Your task to perform on an android device: toggle show notifications on the lock screen Image 0: 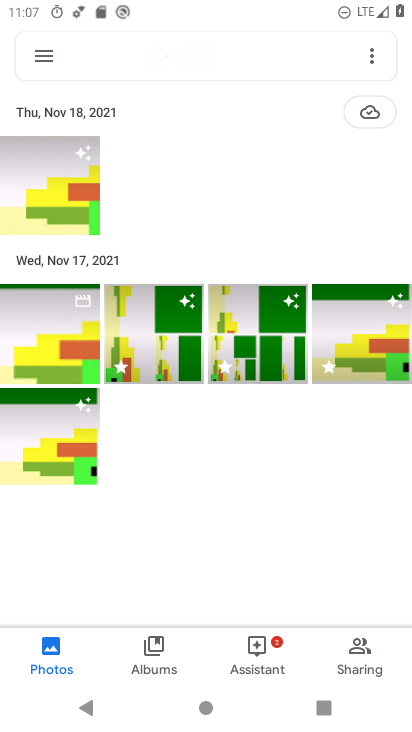
Step 0: press back button
Your task to perform on an android device: toggle show notifications on the lock screen Image 1: 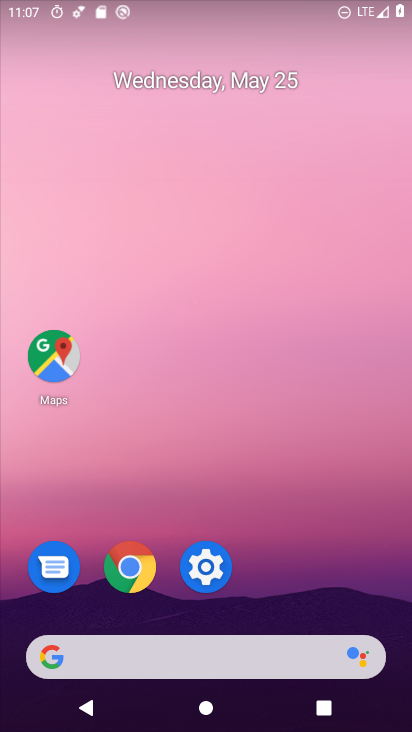
Step 1: drag from (284, 703) to (268, 200)
Your task to perform on an android device: toggle show notifications on the lock screen Image 2: 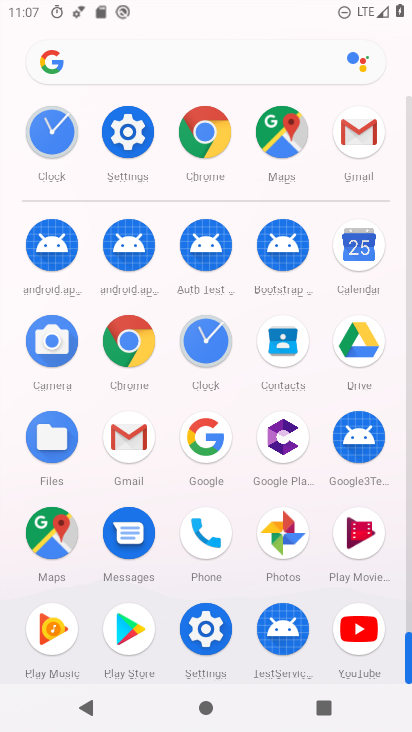
Step 2: click (130, 132)
Your task to perform on an android device: toggle show notifications on the lock screen Image 3: 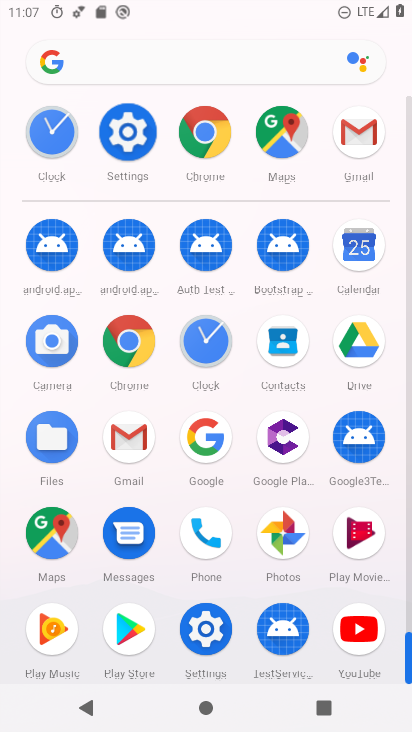
Step 3: click (130, 132)
Your task to perform on an android device: toggle show notifications on the lock screen Image 4: 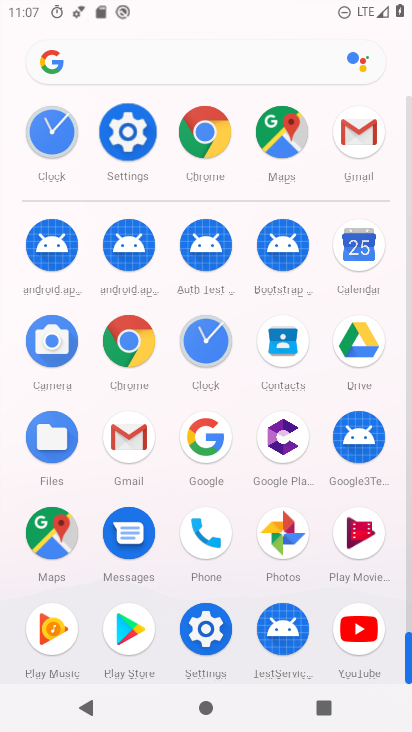
Step 4: click (130, 132)
Your task to perform on an android device: toggle show notifications on the lock screen Image 5: 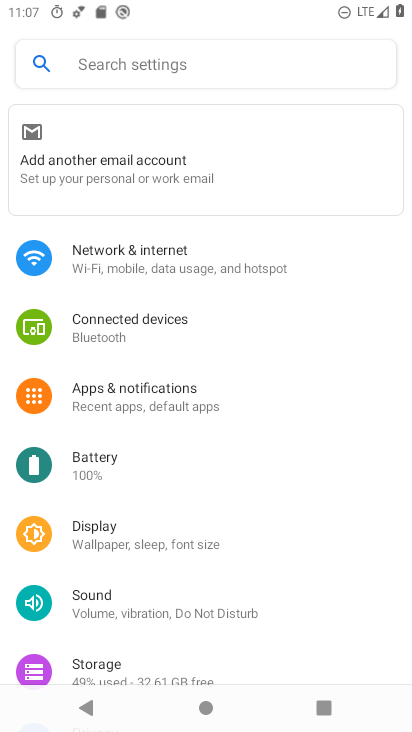
Step 5: click (121, 388)
Your task to perform on an android device: toggle show notifications on the lock screen Image 6: 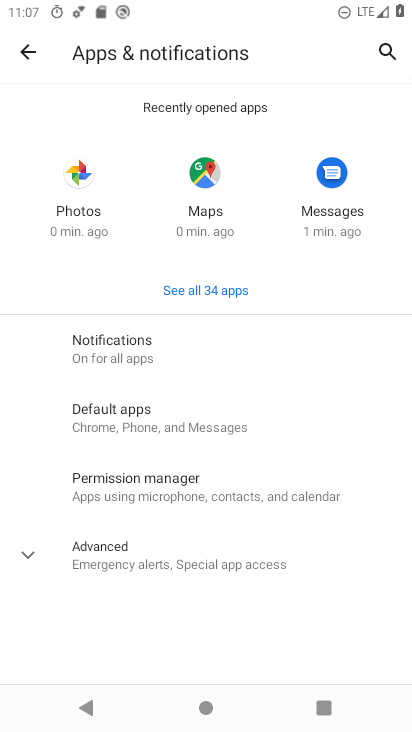
Step 6: click (103, 344)
Your task to perform on an android device: toggle show notifications on the lock screen Image 7: 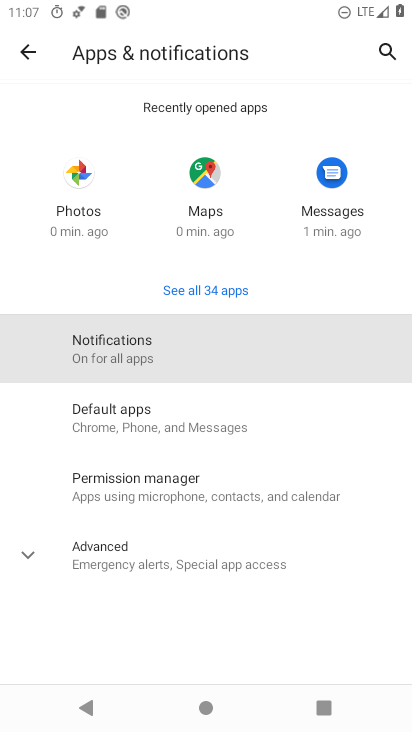
Step 7: click (106, 344)
Your task to perform on an android device: toggle show notifications on the lock screen Image 8: 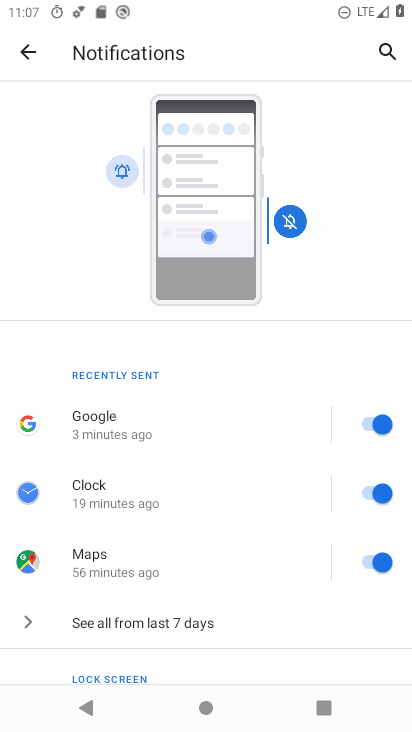
Step 8: drag from (98, 544) to (173, 219)
Your task to perform on an android device: toggle show notifications on the lock screen Image 9: 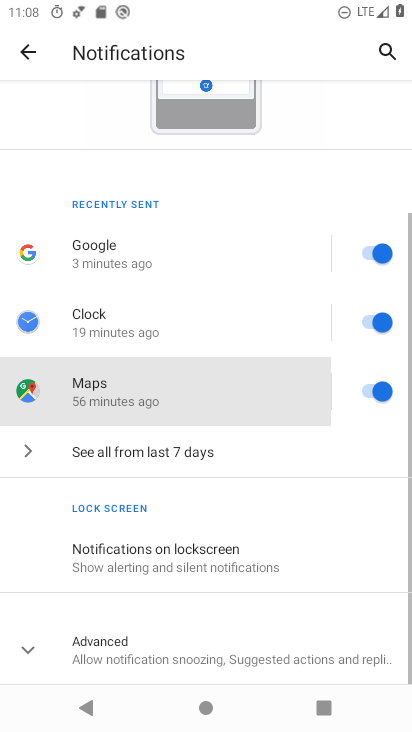
Step 9: drag from (178, 565) to (203, 135)
Your task to perform on an android device: toggle show notifications on the lock screen Image 10: 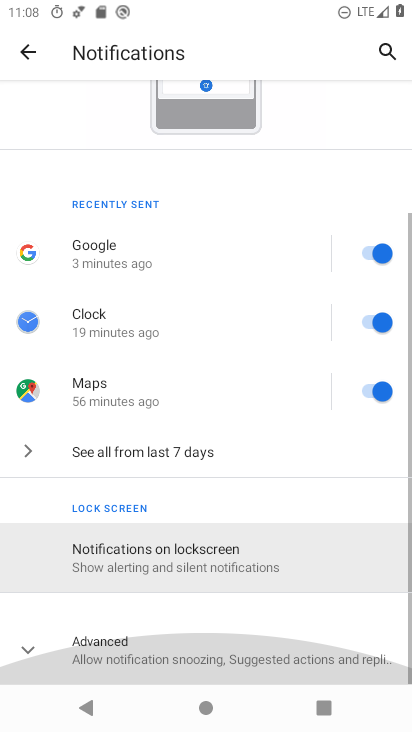
Step 10: drag from (230, 554) to (257, 185)
Your task to perform on an android device: toggle show notifications on the lock screen Image 11: 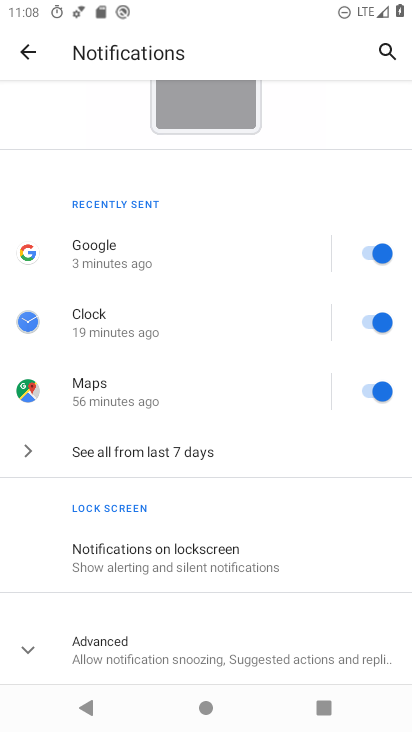
Step 11: click (132, 553)
Your task to perform on an android device: toggle show notifications on the lock screen Image 12: 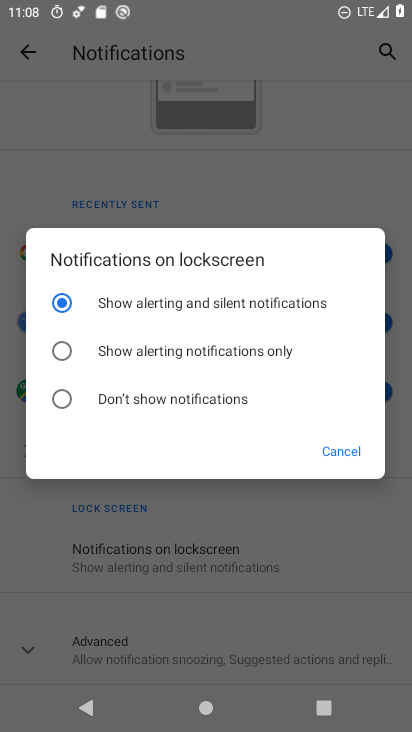
Step 12: click (341, 452)
Your task to perform on an android device: toggle show notifications on the lock screen Image 13: 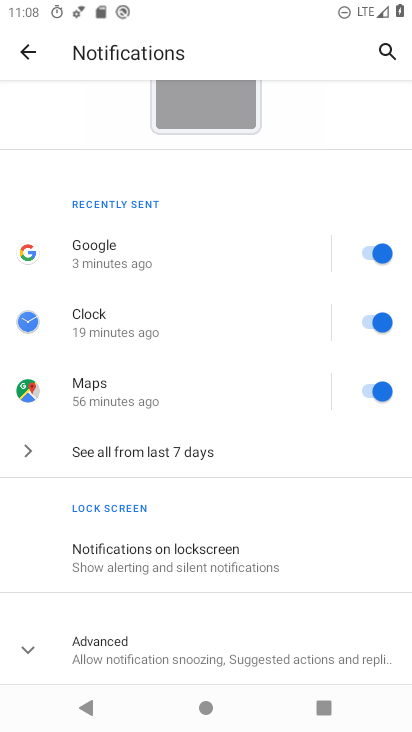
Step 13: task complete